Your task to perform on an android device: turn on the 24-hour format for clock Image 0: 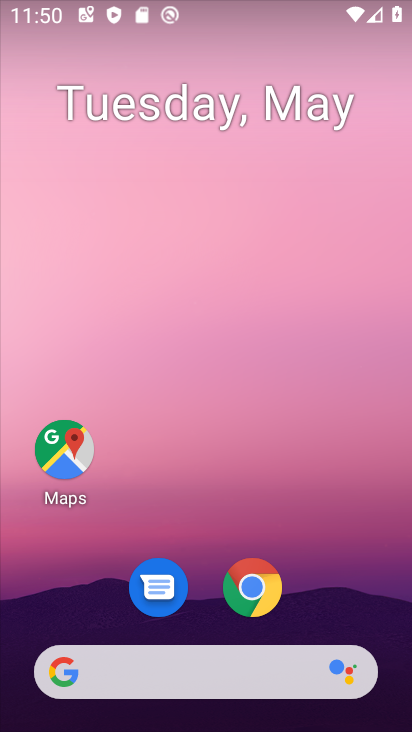
Step 0: drag from (358, 586) to (319, 57)
Your task to perform on an android device: turn on the 24-hour format for clock Image 1: 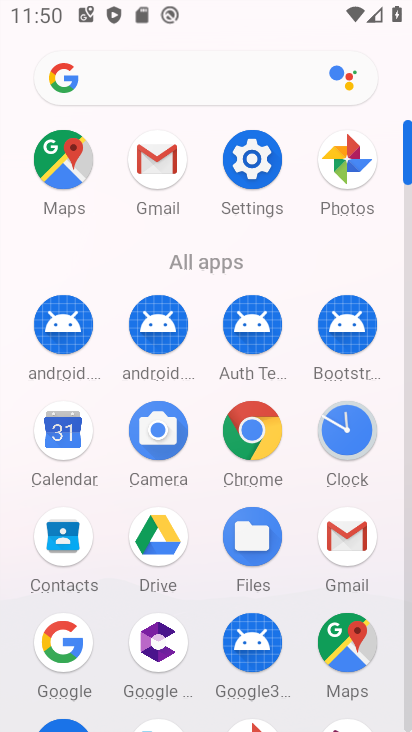
Step 1: click (343, 440)
Your task to perform on an android device: turn on the 24-hour format for clock Image 2: 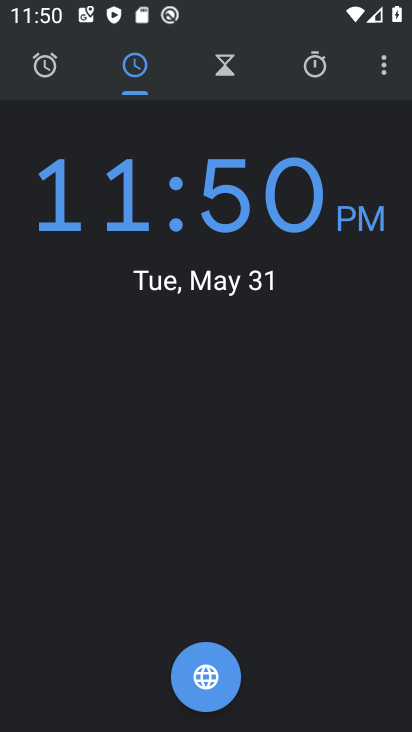
Step 2: click (374, 77)
Your task to perform on an android device: turn on the 24-hour format for clock Image 3: 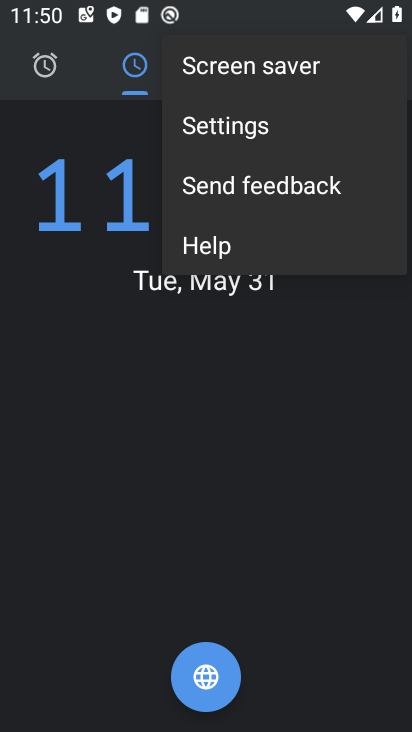
Step 3: click (246, 113)
Your task to perform on an android device: turn on the 24-hour format for clock Image 4: 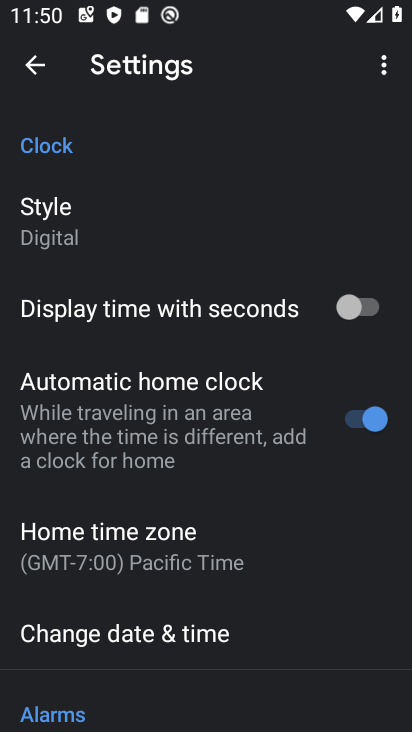
Step 4: click (144, 637)
Your task to perform on an android device: turn on the 24-hour format for clock Image 5: 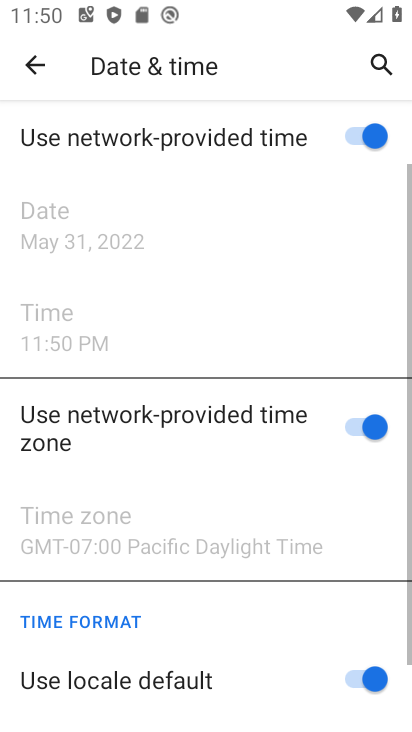
Step 5: drag from (182, 637) to (191, 56)
Your task to perform on an android device: turn on the 24-hour format for clock Image 6: 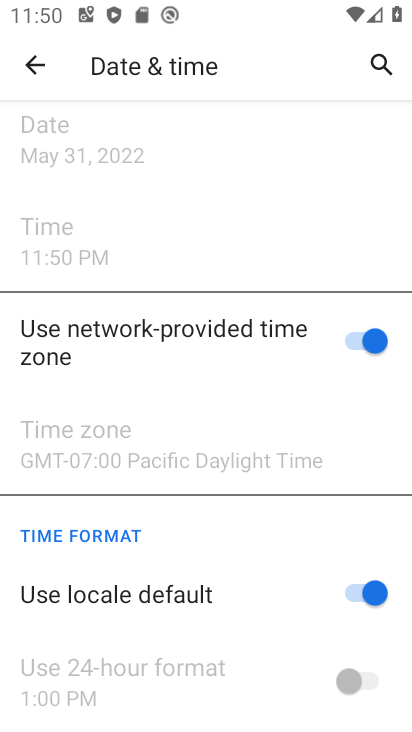
Step 6: click (349, 602)
Your task to perform on an android device: turn on the 24-hour format for clock Image 7: 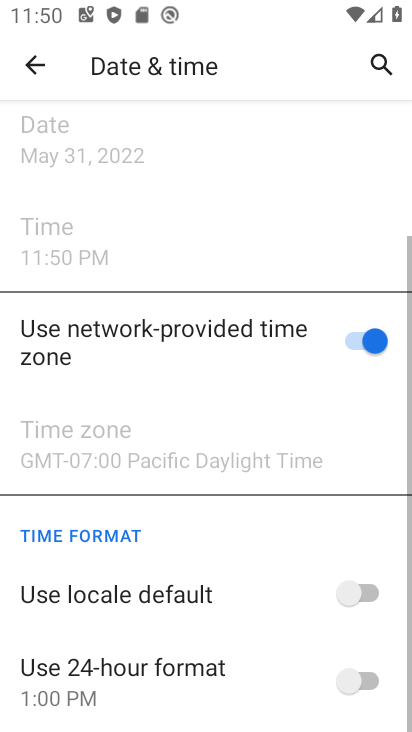
Step 7: click (360, 684)
Your task to perform on an android device: turn on the 24-hour format for clock Image 8: 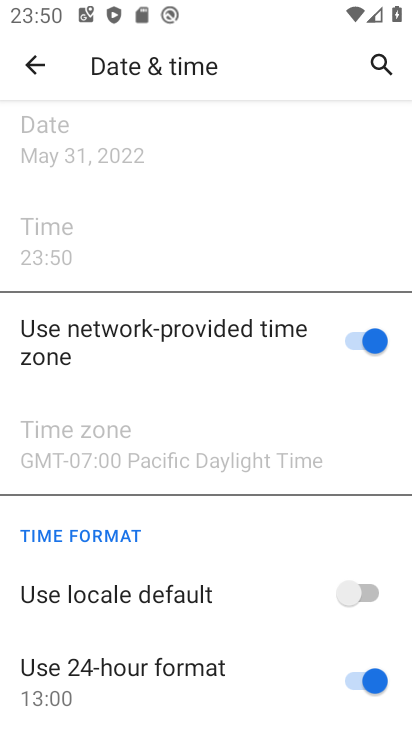
Step 8: task complete